Your task to perform on an android device: turn off javascript in the chrome app Image 0: 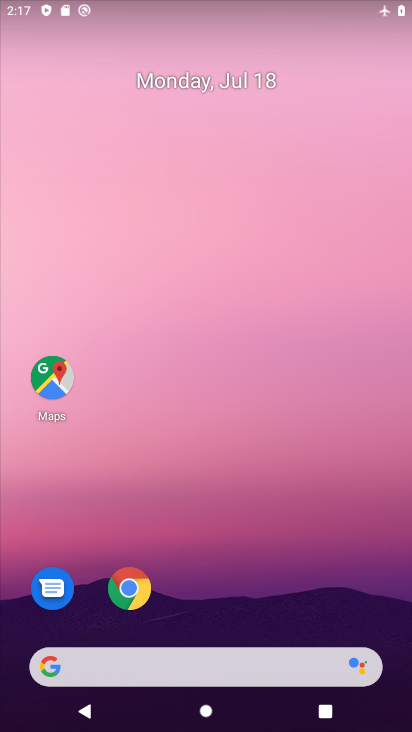
Step 0: click (133, 580)
Your task to perform on an android device: turn off javascript in the chrome app Image 1: 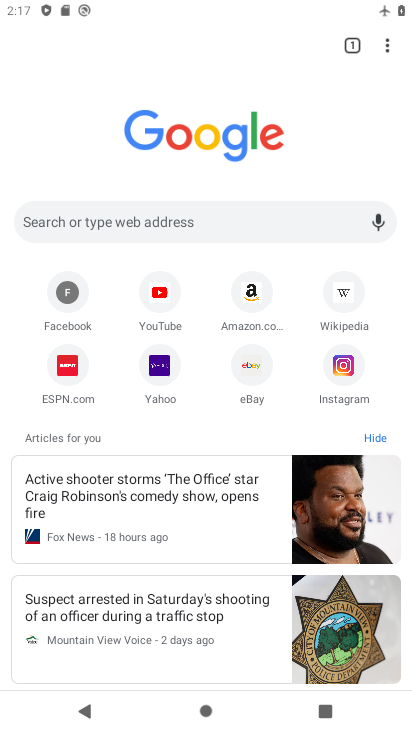
Step 1: drag from (391, 41) to (209, 377)
Your task to perform on an android device: turn off javascript in the chrome app Image 2: 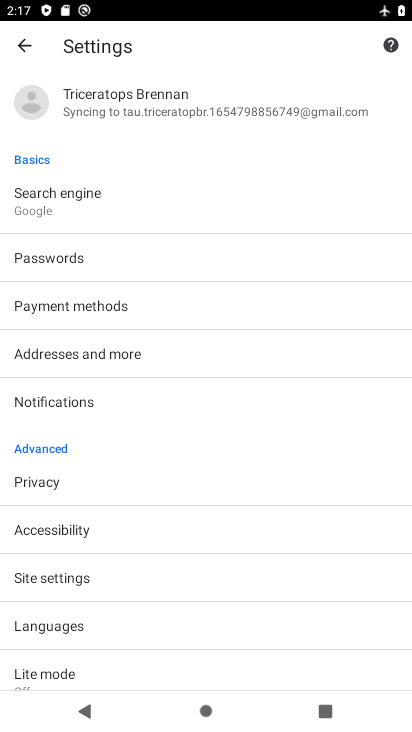
Step 2: click (72, 578)
Your task to perform on an android device: turn off javascript in the chrome app Image 3: 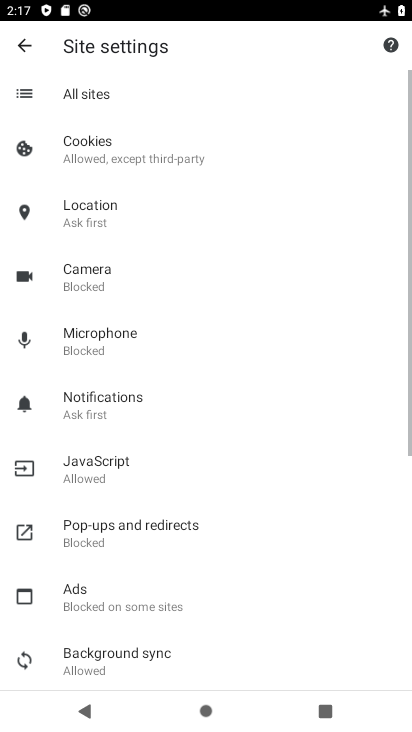
Step 3: click (103, 480)
Your task to perform on an android device: turn off javascript in the chrome app Image 4: 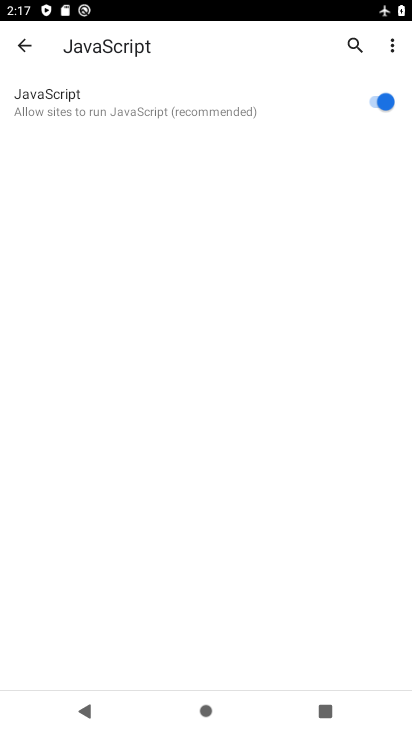
Step 4: click (390, 102)
Your task to perform on an android device: turn off javascript in the chrome app Image 5: 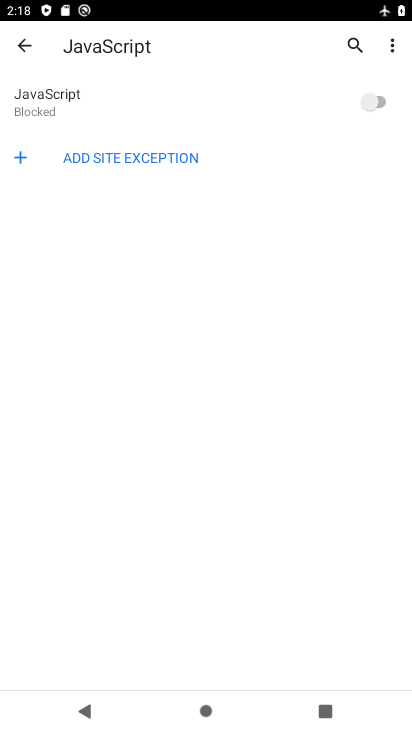
Step 5: task complete